Your task to perform on an android device: What's on my calendar today? Image 0: 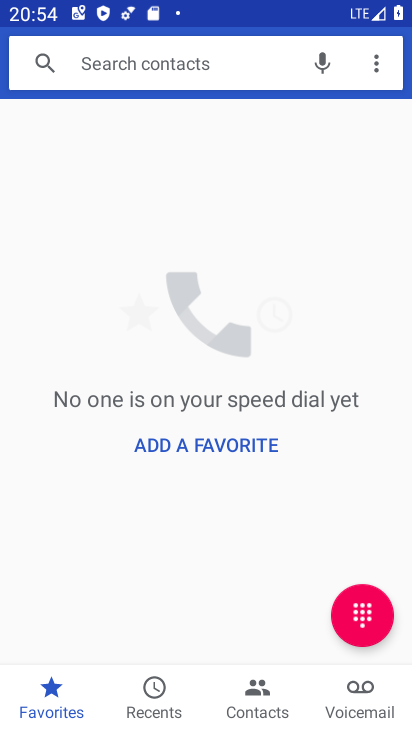
Step 0: press back button
Your task to perform on an android device: What's on my calendar today? Image 1: 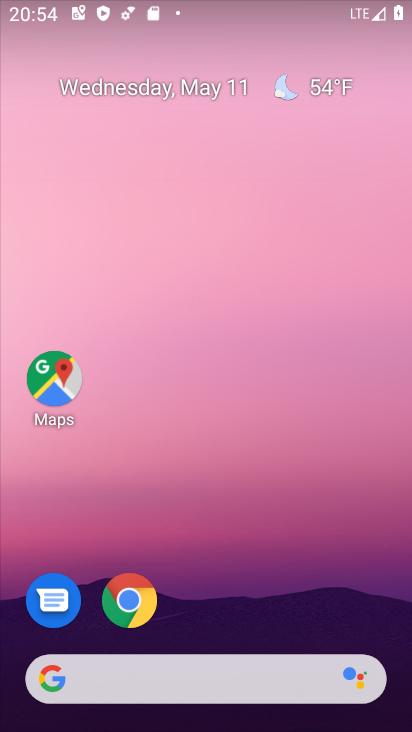
Step 1: drag from (234, 585) to (406, 390)
Your task to perform on an android device: What's on my calendar today? Image 2: 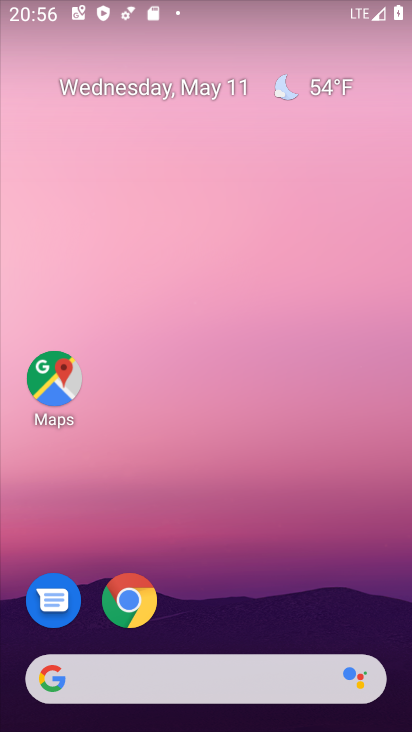
Step 2: drag from (256, 602) to (201, 35)
Your task to perform on an android device: What's on my calendar today? Image 3: 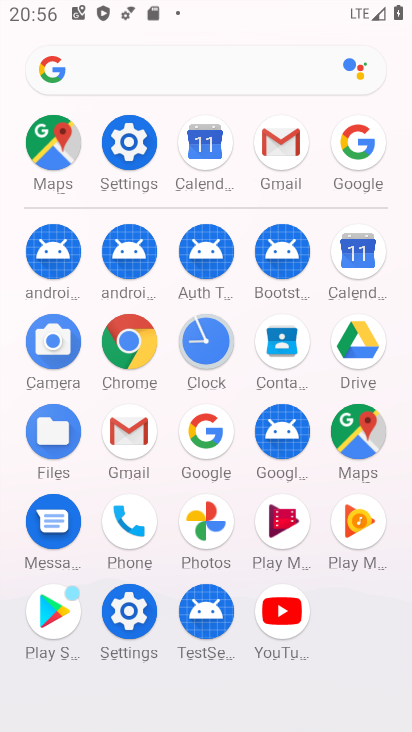
Step 3: click (363, 258)
Your task to perform on an android device: What's on my calendar today? Image 4: 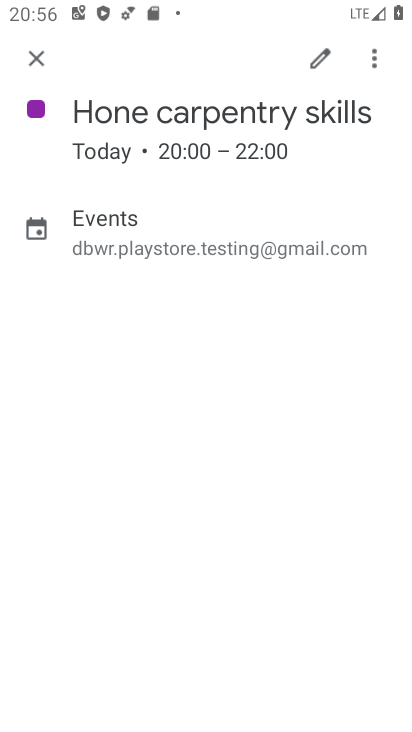
Step 4: task complete